Your task to perform on an android device: star an email in the gmail app Image 0: 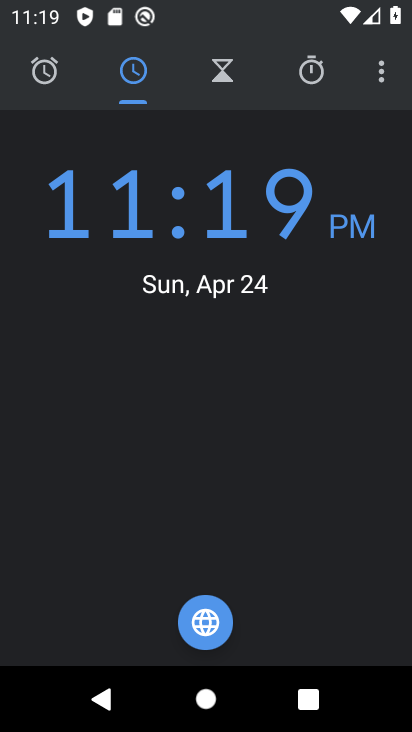
Step 0: press home button
Your task to perform on an android device: star an email in the gmail app Image 1: 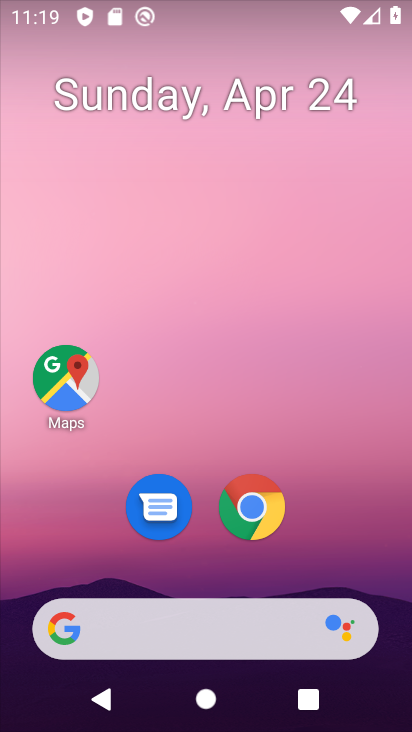
Step 1: drag from (309, 537) to (323, 124)
Your task to perform on an android device: star an email in the gmail app Image 2: 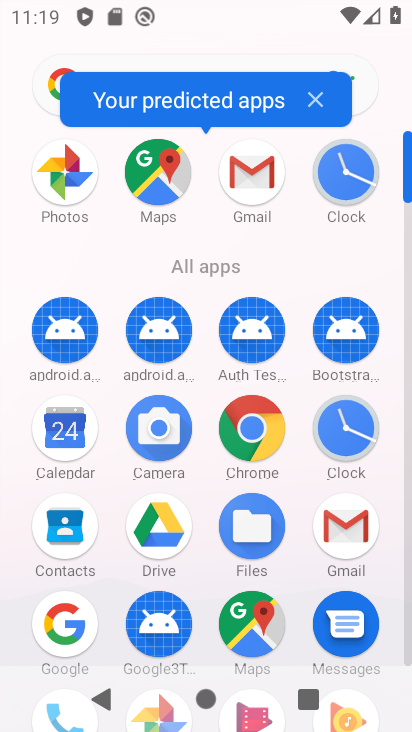
Step 2: click (240, 186)
Your task to perform on an android device: star an email in the gmail app Image 3: 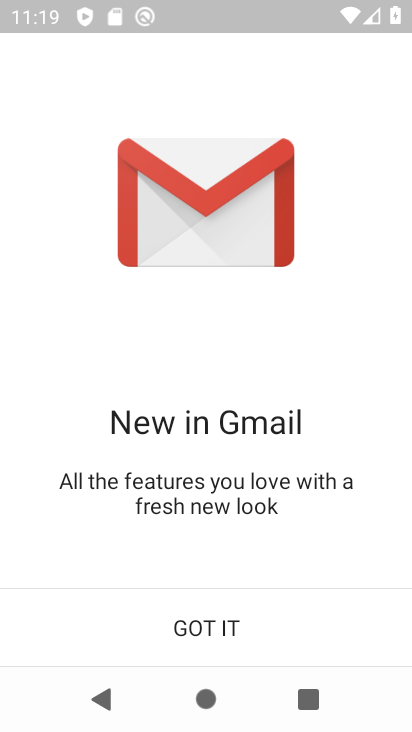
Step 3: click (232, 628)
Your task to perform on an android device: star an email in the gmail app Image 4: 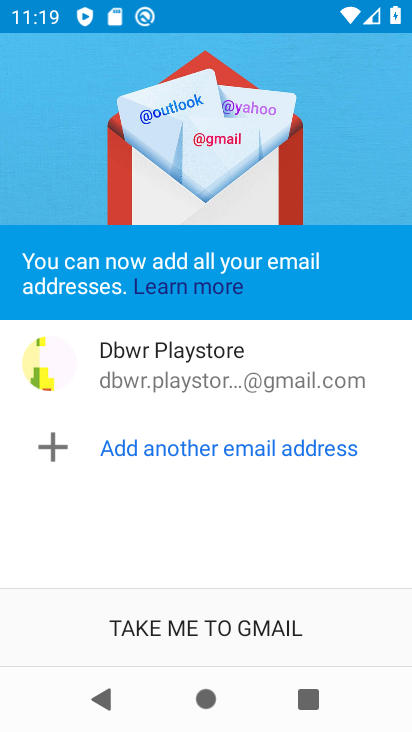
Step 4: click (229, 626)
Your task to perform on an android device: star an email in the gmail app Image 5: 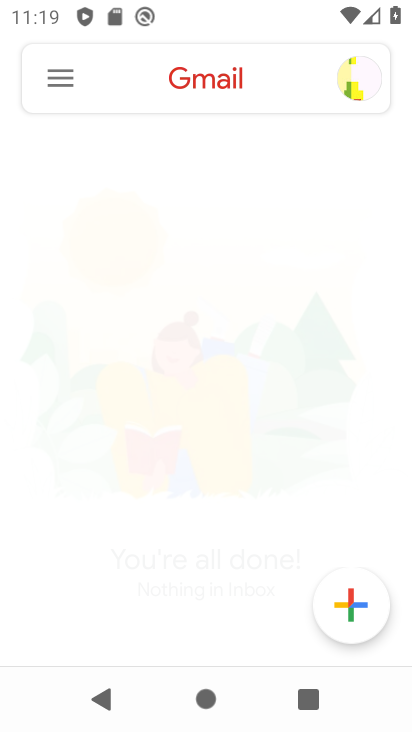
Step 5: click (251, 623)
Your task to perform on an android device: star an email in the gmail app Image 6: 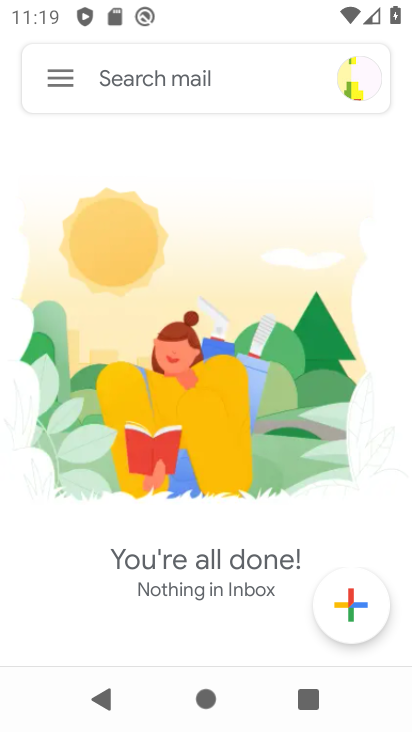
Step 6: task complete